Your task to perform on an android device: turn on the 12-hour format for clock Image 0: 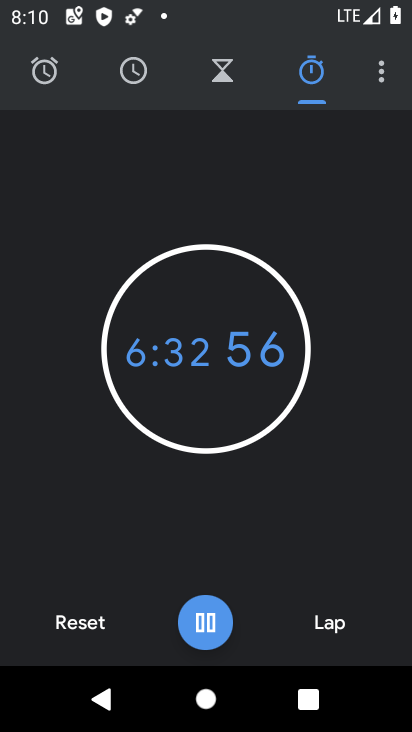
Step 0: press home button
Your task to perform on an android device: turn on the 12-hour format for clock Image 1: 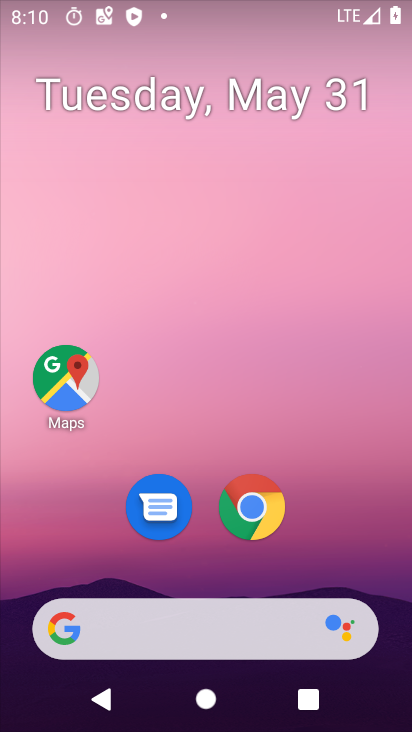
Step 1: drag from (51, 569) to (279, 55)
Your task to perform on an android device: turn on the 12-hour format for clock Image 2: 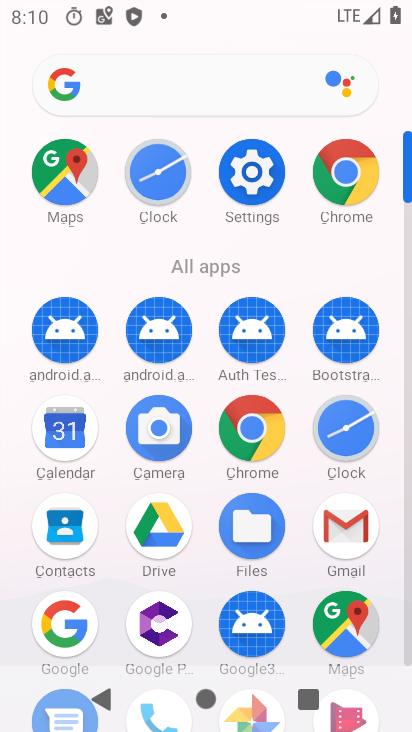
Step 2: click (334, 425)
Your task to perform on an android device: turn on the 12-hour format for clock Image 3: 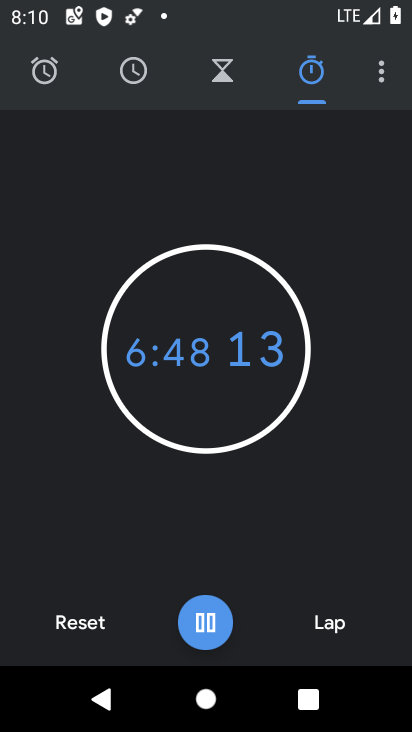
Step 3: click (387, 69)
Your task to perform on an android device: turn on the 12-hour format for clock Image 4: 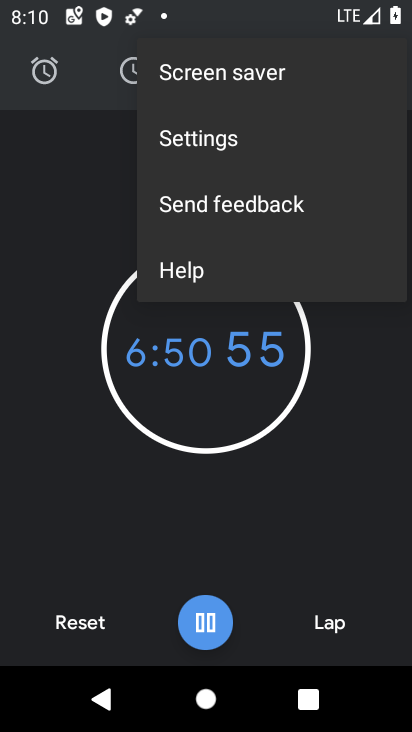
Step 4: click (223, 147)
Your task to perform on an android device: turn on the 12-hour format for clock Image 5: 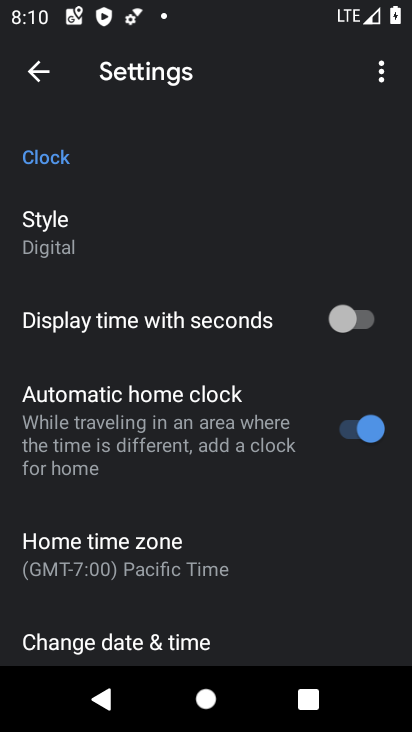
Step 5: drag from (0, 689) to (196, 202)
Your task to perform on an android device: turn on the 12-hour format for clock Image 6: 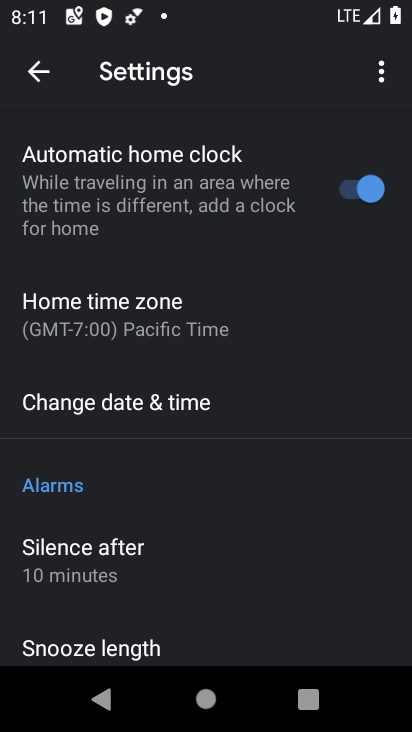
Step 6: click (110, 415)
Your task to perform on an android device: turn on the 12-hour format for clock Image 7: 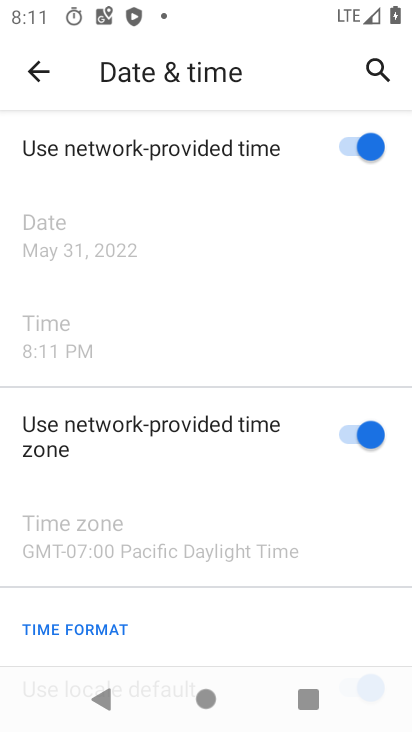
Step 7: task complete